Your task to perform on an android device: Play the last video I watched on Youtube Image 0: 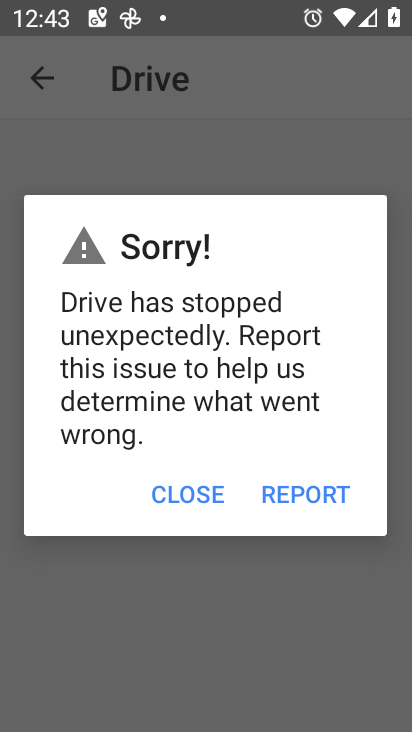
Step 0: press home button
Your task to perform on an android device: Play the last video I watched on Youtube Image 1: 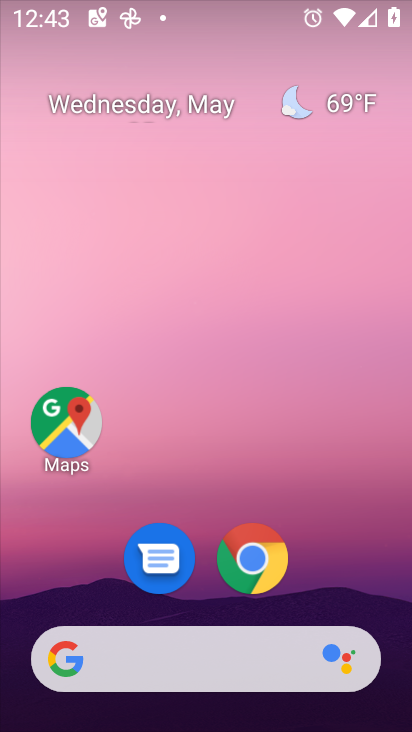
Step 1: drag from (403, 650) to (269, 11)
Your task to perform on an android device: Play the last video I watched on Youtube Image 2: 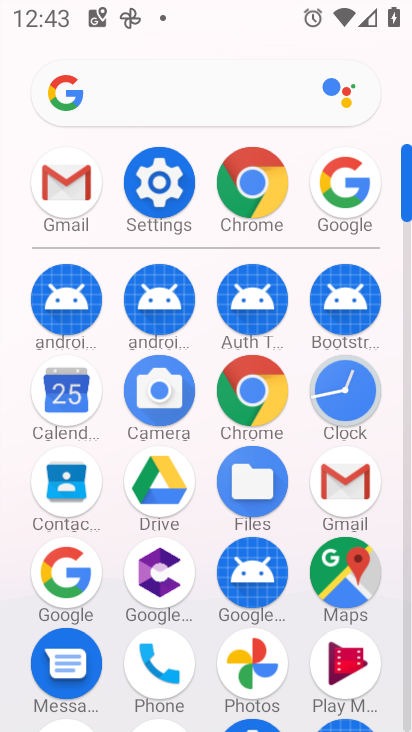
Step 2: drag from (310, 658) to (288, 125)
Your task to perform on an android device: Play the last video I watched on Youtube Image 3: 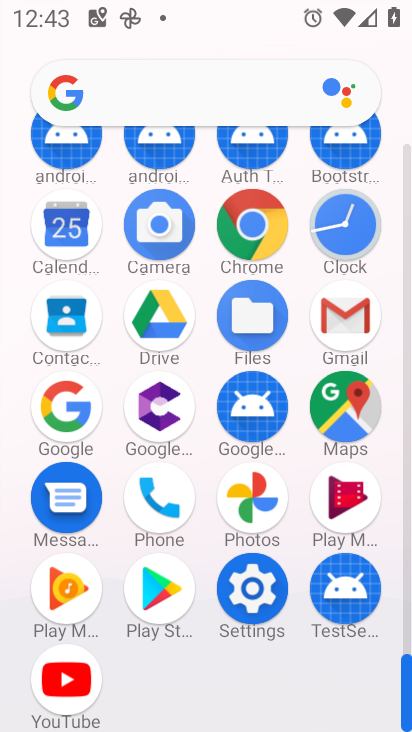
Step 3: click (65, 675)
Your task to perform on an android device: Play the last video I watched on Youtube Image 4: 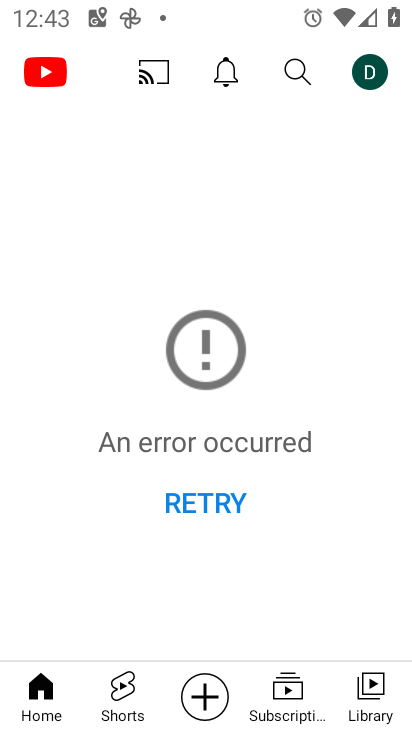
Step 4: task complete